Your task to perform on an android device: Open battery settings Image 0: 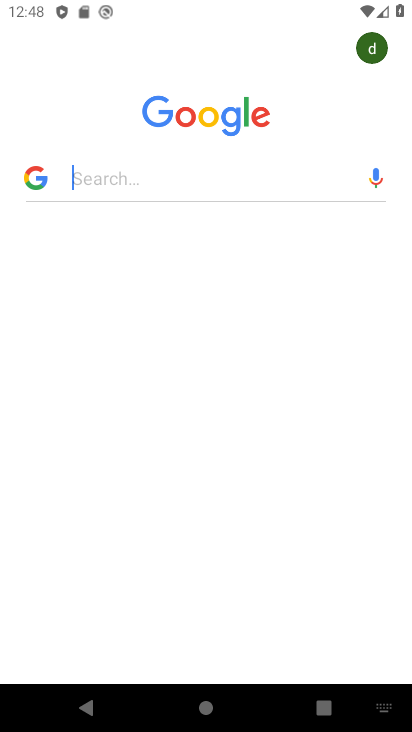
Step 0: press back button
Your task to perform on an android device: Open battery settings Image 1: 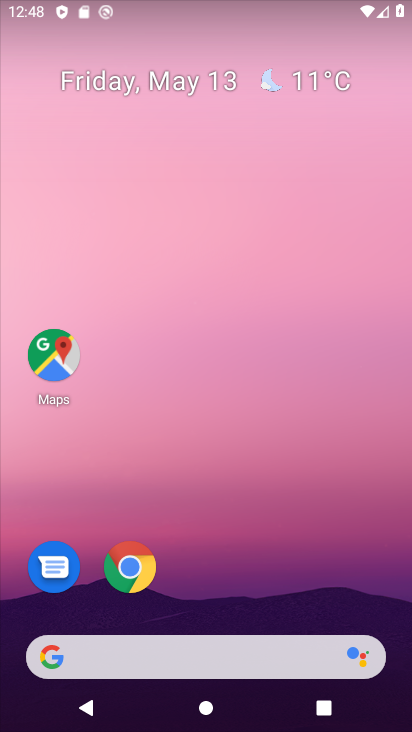
Step 1: drag from (286, 427) to (324, 252)
Your task to perform on an android device: Open battery settings Image 2: 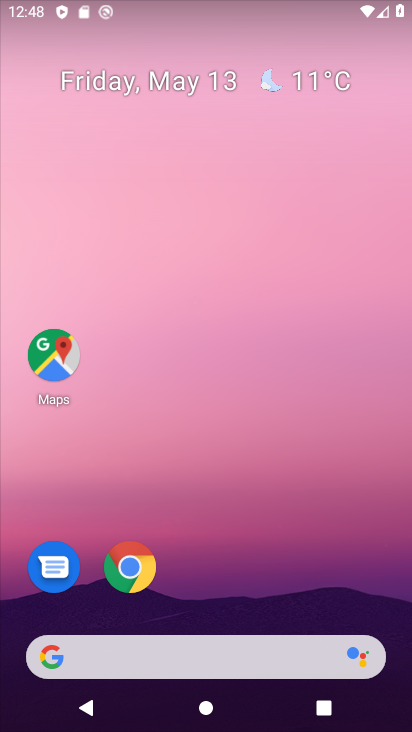
Step 2: drag from (198, 611) to (308, 228)
Your task to perform on an android device: Open battery settings Image 3: 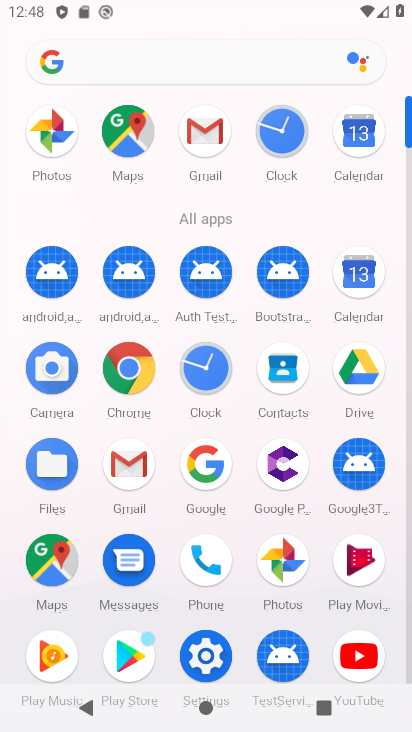
Step 3: click (203, 644)
Your task to perform on an android device: Open battery settings Image 4: 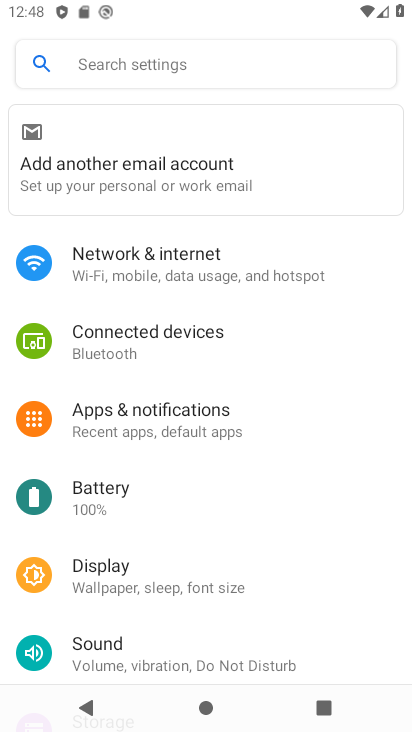
Step 4: drag from (151, 619) to (247, 346)
Your task to perform on an android device: Open battery settings Image 5: 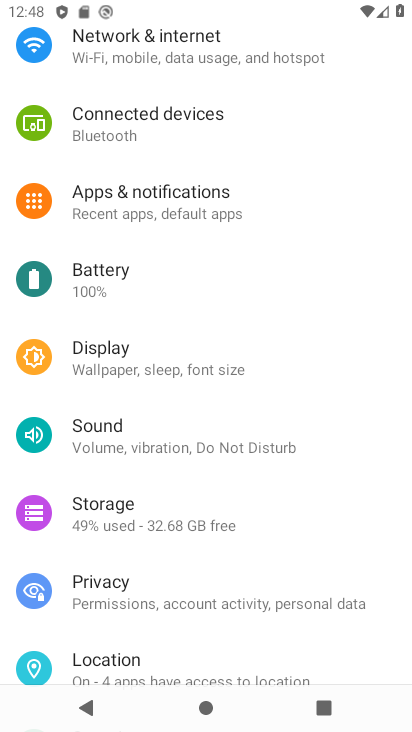
Step 5: drag from (174, 562) to (247, 329)
Your task to perform on an android device: Open battery settings Image 6: 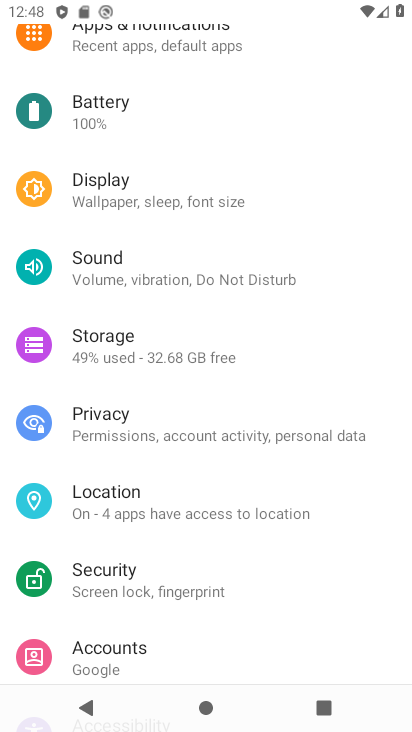
Step 6: click (188, 98)
Your task to perform on an android device: Open battery settings Image 7: 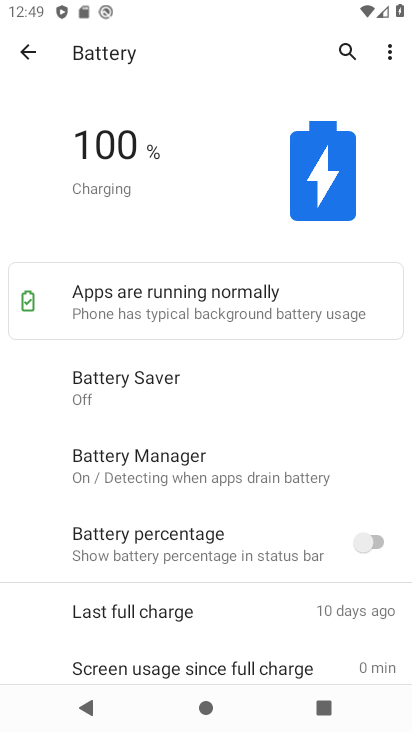
Step 7: task complete